Your task to perform on an android device: change the upload size in google photos Image 0: 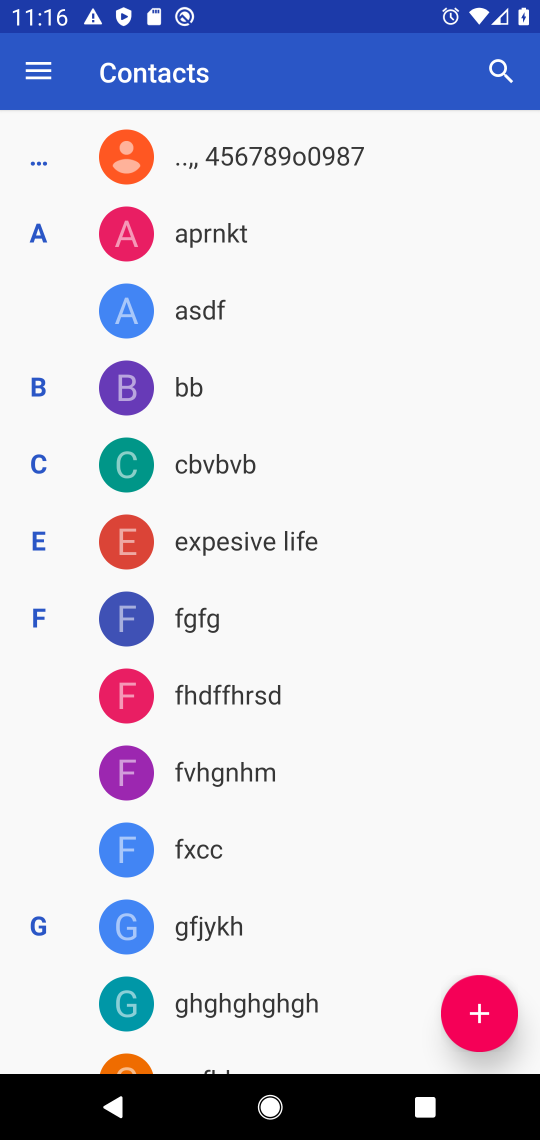
Step 0: press home button
Your task to perform on an android device: change the upload size in google photos Image 1: 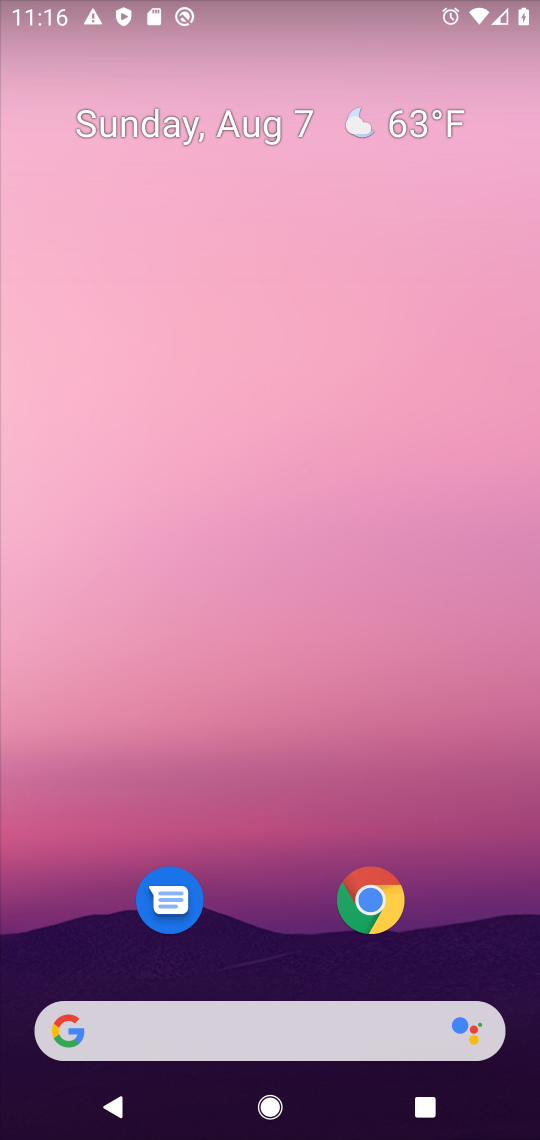
Step 1: drag from (291, 955) to (233, 217)
Your task to perform on an android device: change the upload size in google photos Image 2: 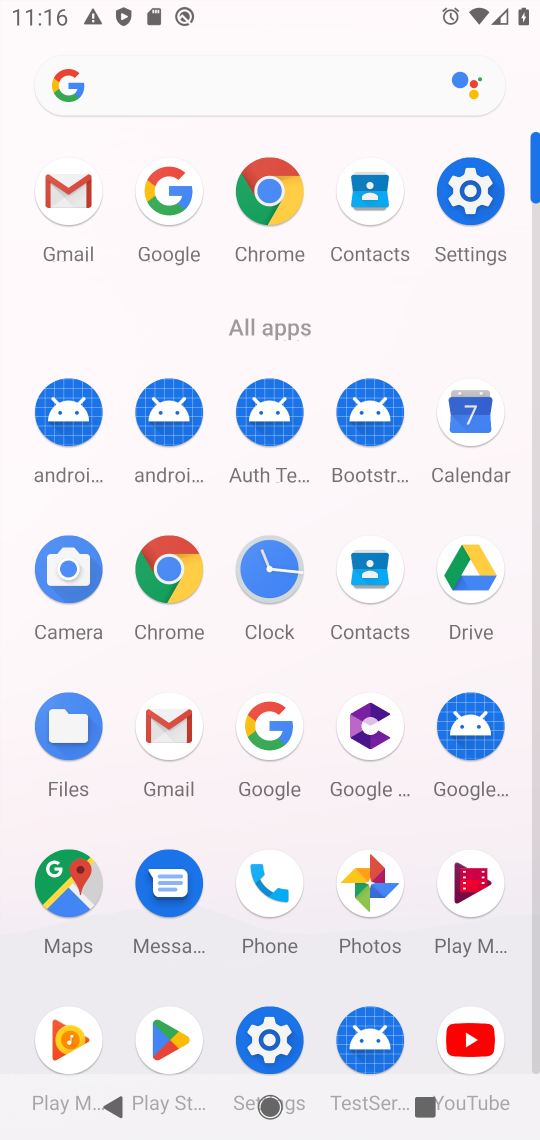
Step 2: click (370, 876)
Your task to perform on an android device: change the upload size in google photos Image 3: 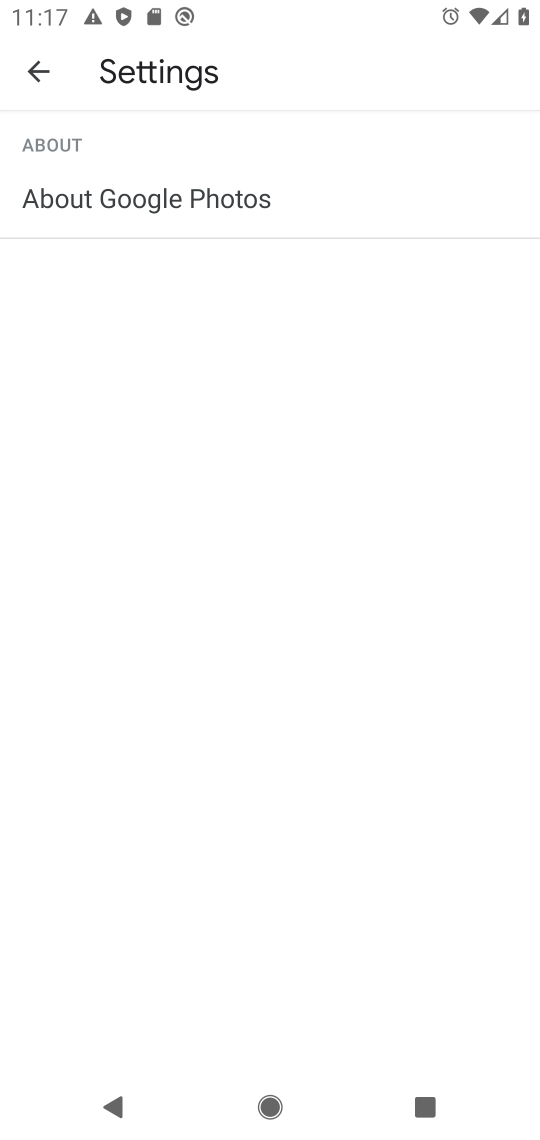
Step 3: click (39, 63)
Your task to perform on an android device: change the upload size in google photos Image 4: 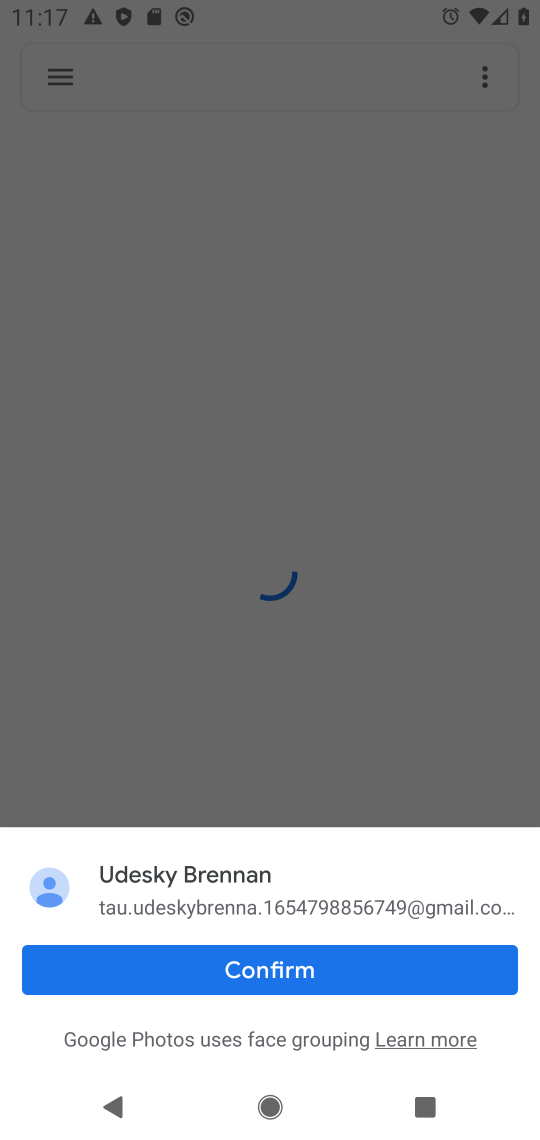
Step 4: click (60, 74)
Your task to perform on an android device: change the upload size in google photos Image 5: 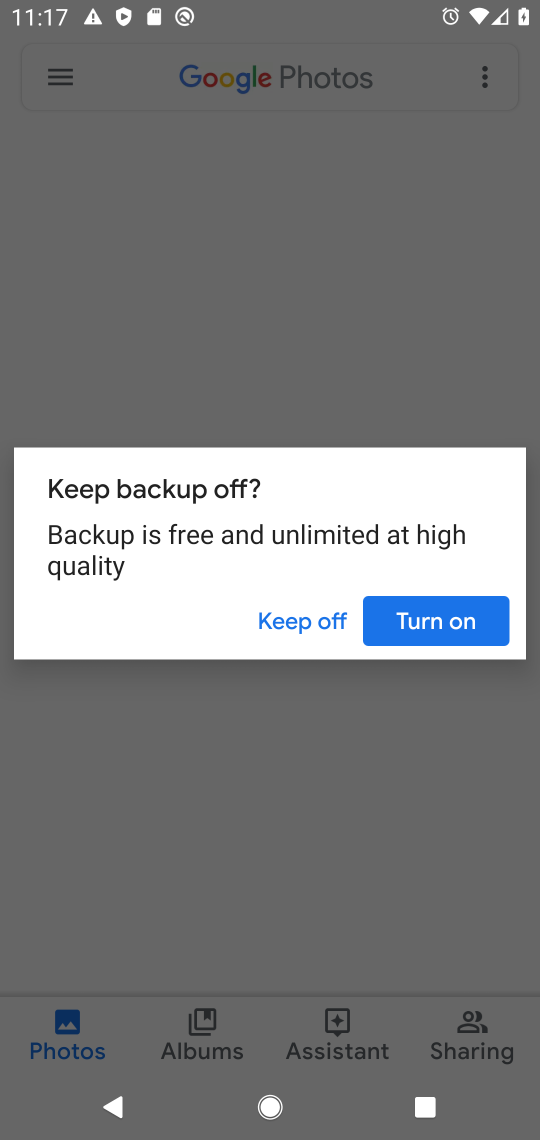
Step 5: click (419, 625)
Your task to perform on an android device: change the upload size in google photos Image 6: 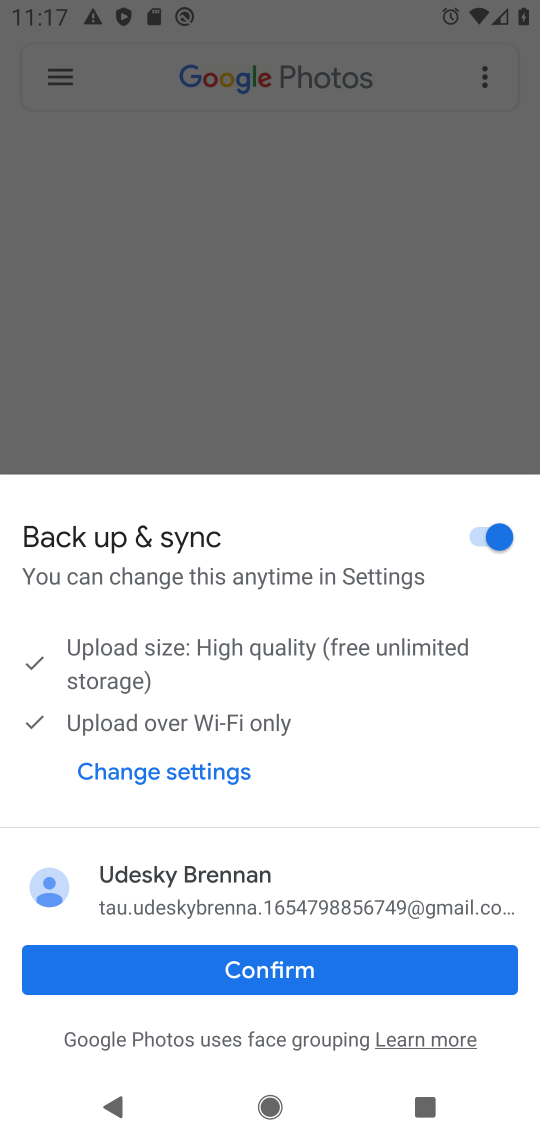
Step 6: click (316, 967)
Your task to perform on an android device: change the upload size in google photos Image 7: 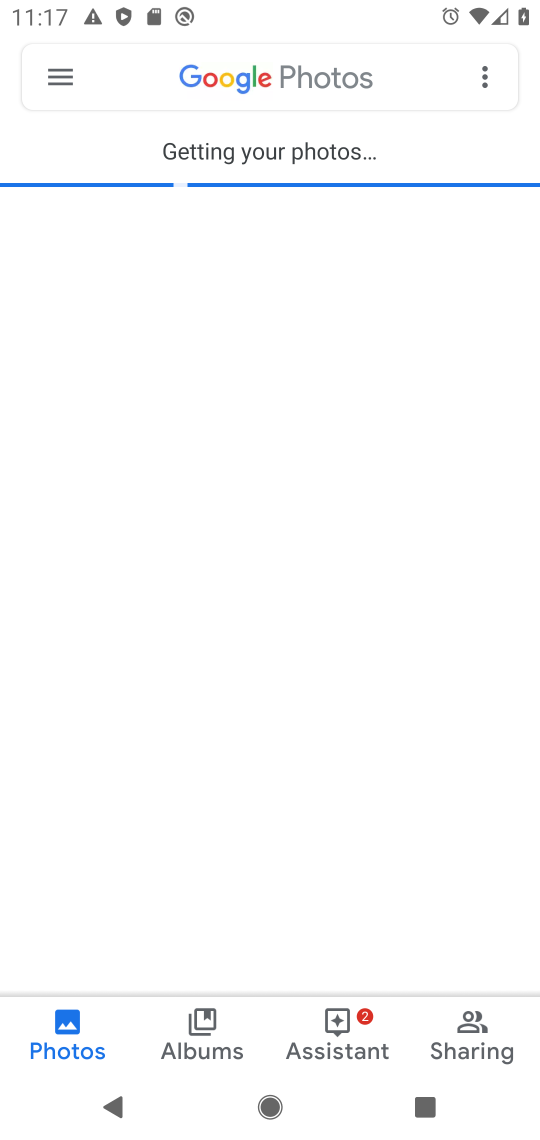
Step 7: click (51, 62)
Your task to perform on an android device: change the upload size in google photos Image 8: 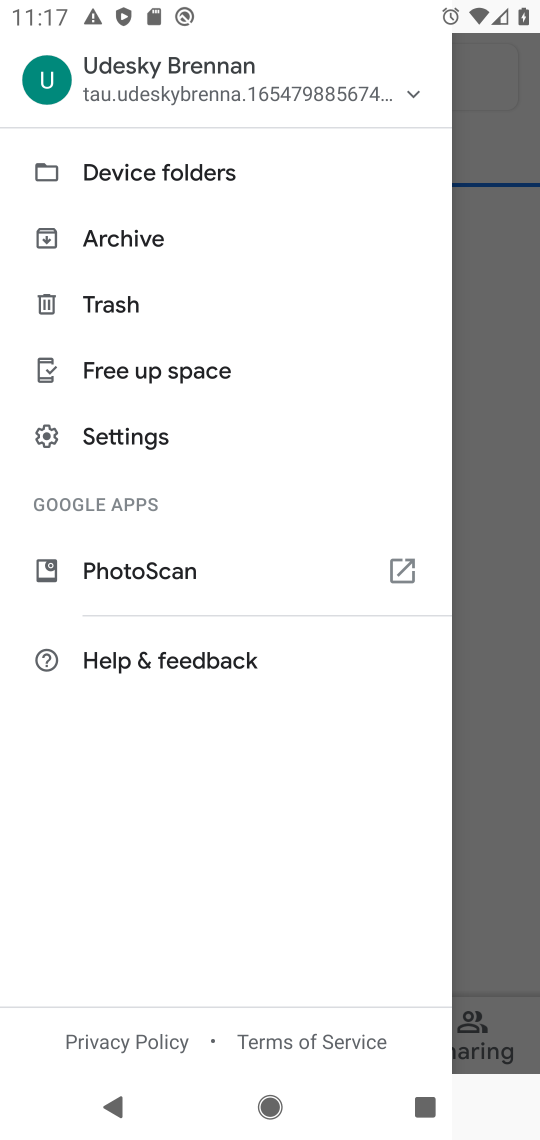
Step 8: click (151, 436)
Your task to perform on an android device: change the upload size in google photos Image 9: 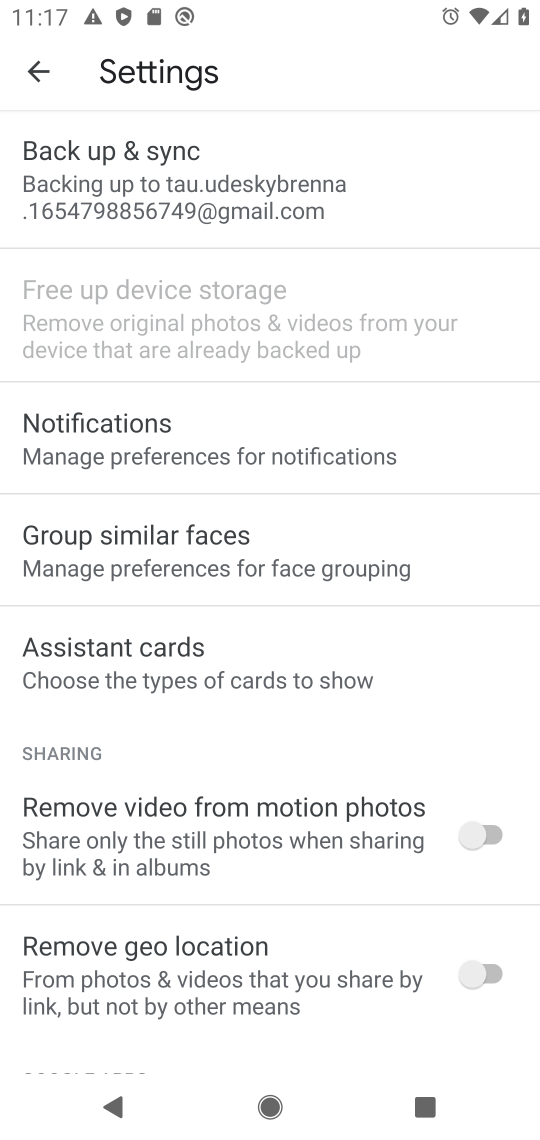
Step 9: click (194, 194)
Your task to perform on an android device: change the upload size in google photos Image 10: 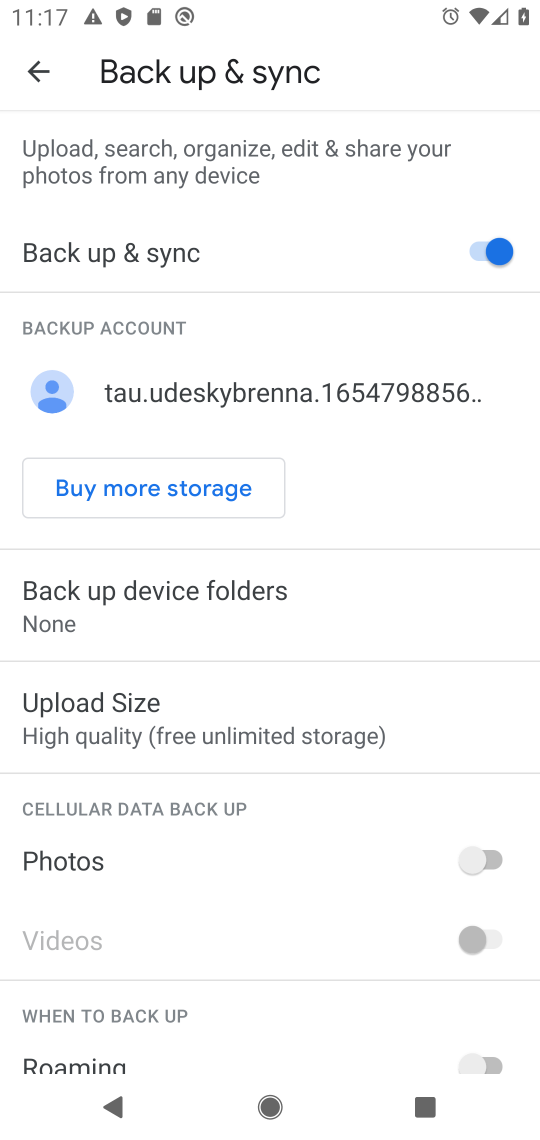
Step 10: click (211, 711)
Your task to perform on an android device: change the upload size in google photos Image 11: 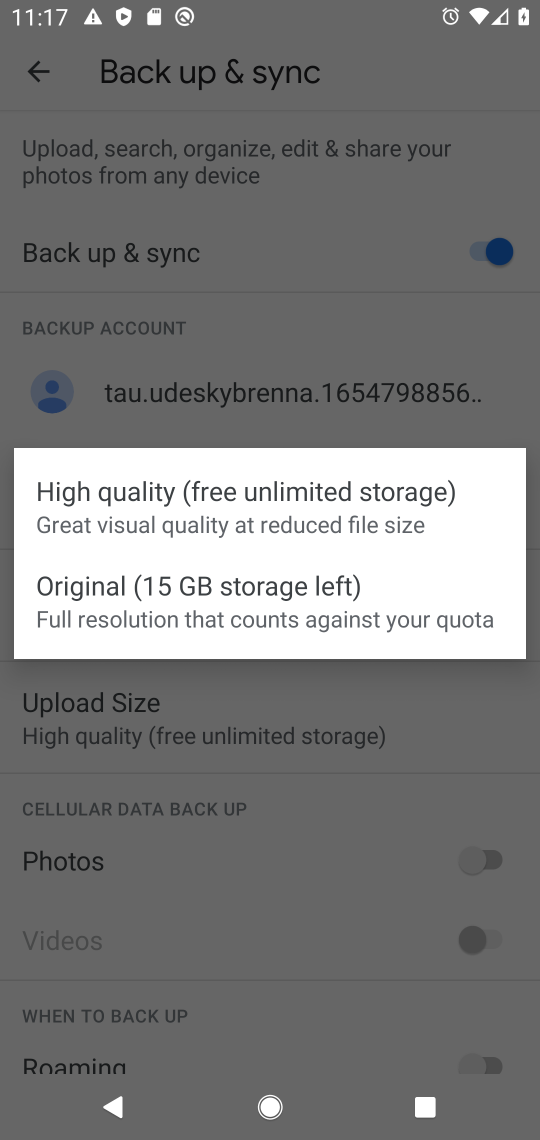
Step 11: click (207, 602)
Your task to perform on an android device: change the upload size in google photos Image 12: 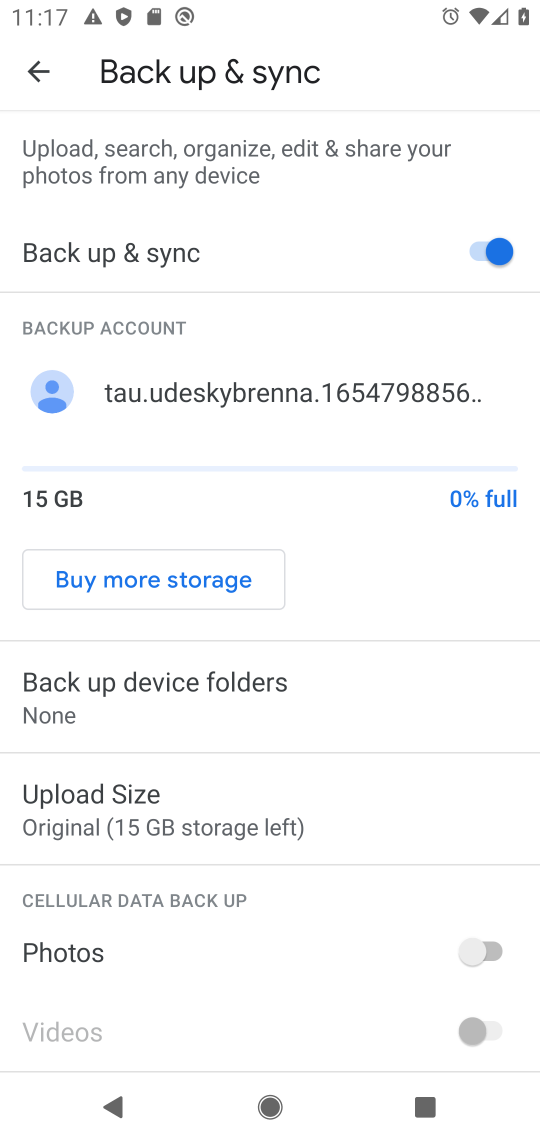
Step 12: task complete